Your task to perform on an android device: What's the weather going to be tomorrow? Image 0: 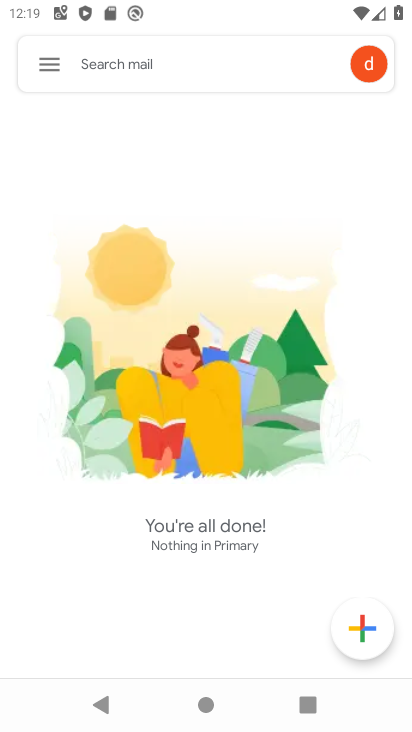
Step 0: press back button
Your task to perform on an android device: What's the weather going to be tomorrow? Image 1: 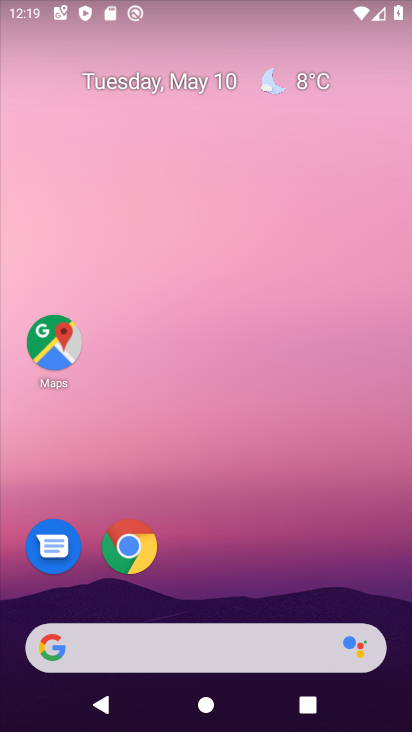
Step 1: click (267, 79)
Your task to perform on an android device: What's the weather going to be tomorrow? Image 2: 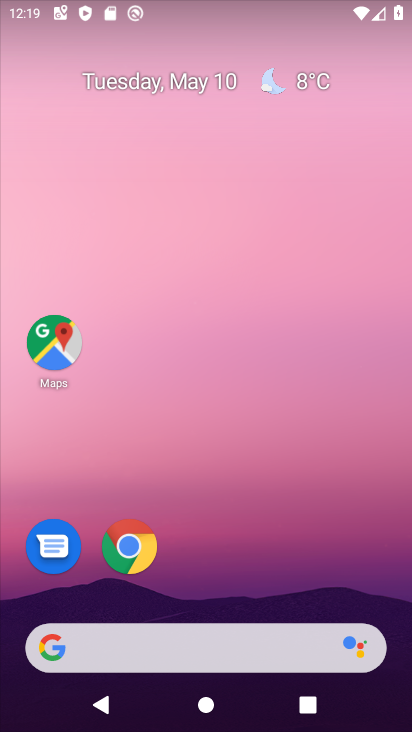
Step 2: click (267, 79)
Your task to perform on an android device: What's the weather going to be tomorrow? Image 3: 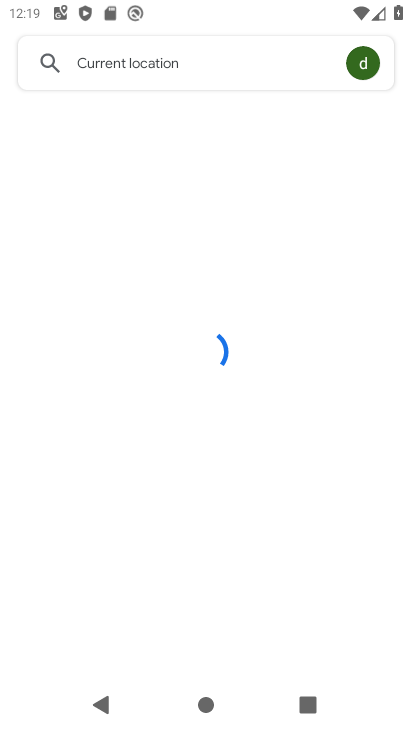
Step 3: click (272, 78)
Your task to perform on an android device: What's the weather going to be tomorrow? Image 4: 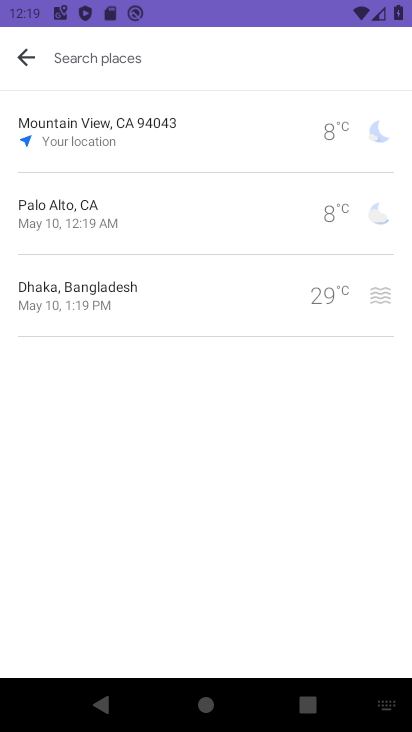
Step 4: task complete